Your task to perform on an android device: Clear all items from cart on ebay. Add logitech g502 to the cart on ebay, then select checkout. Image 0: 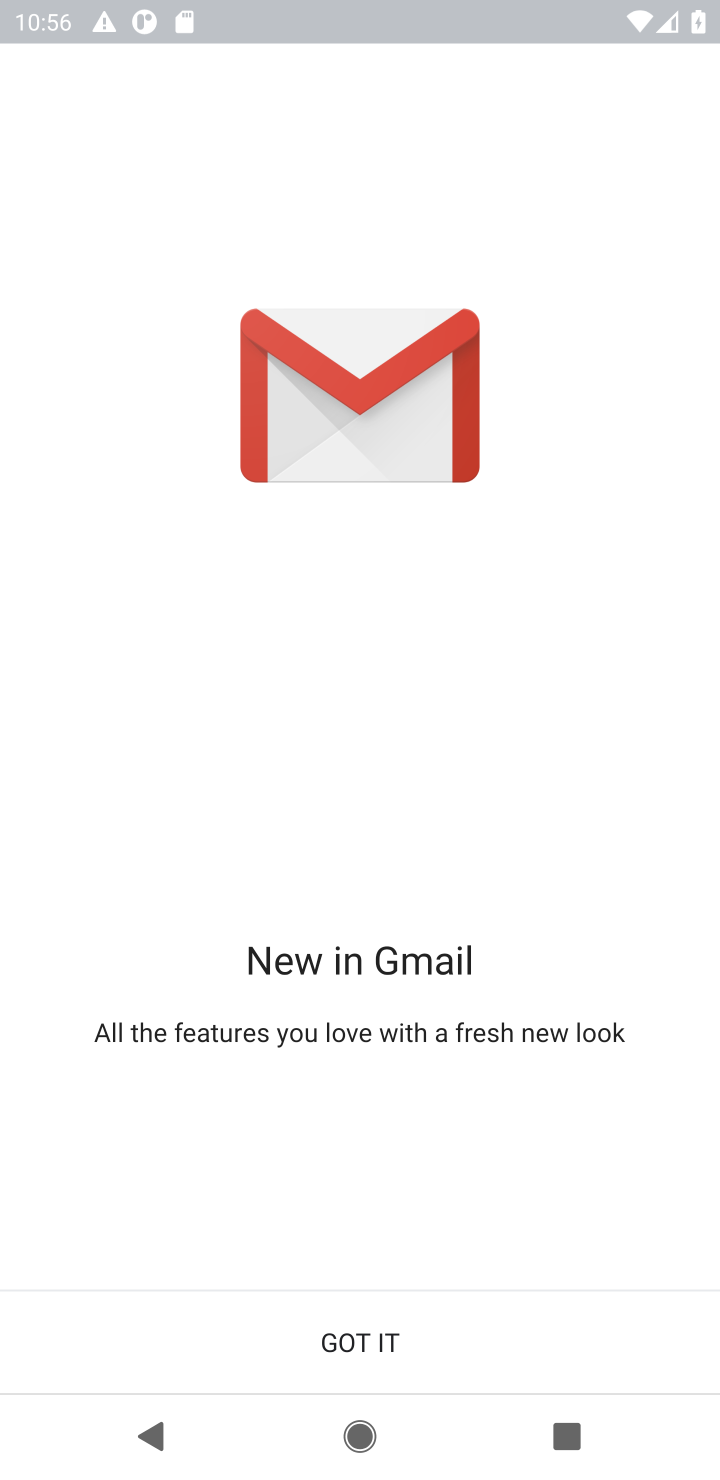
Step 0: press home button
Your task to perform on an android device: Clear all items from cart on ebay. Add logitech g502 to the cart on ebay, then select checkout. Image 1: 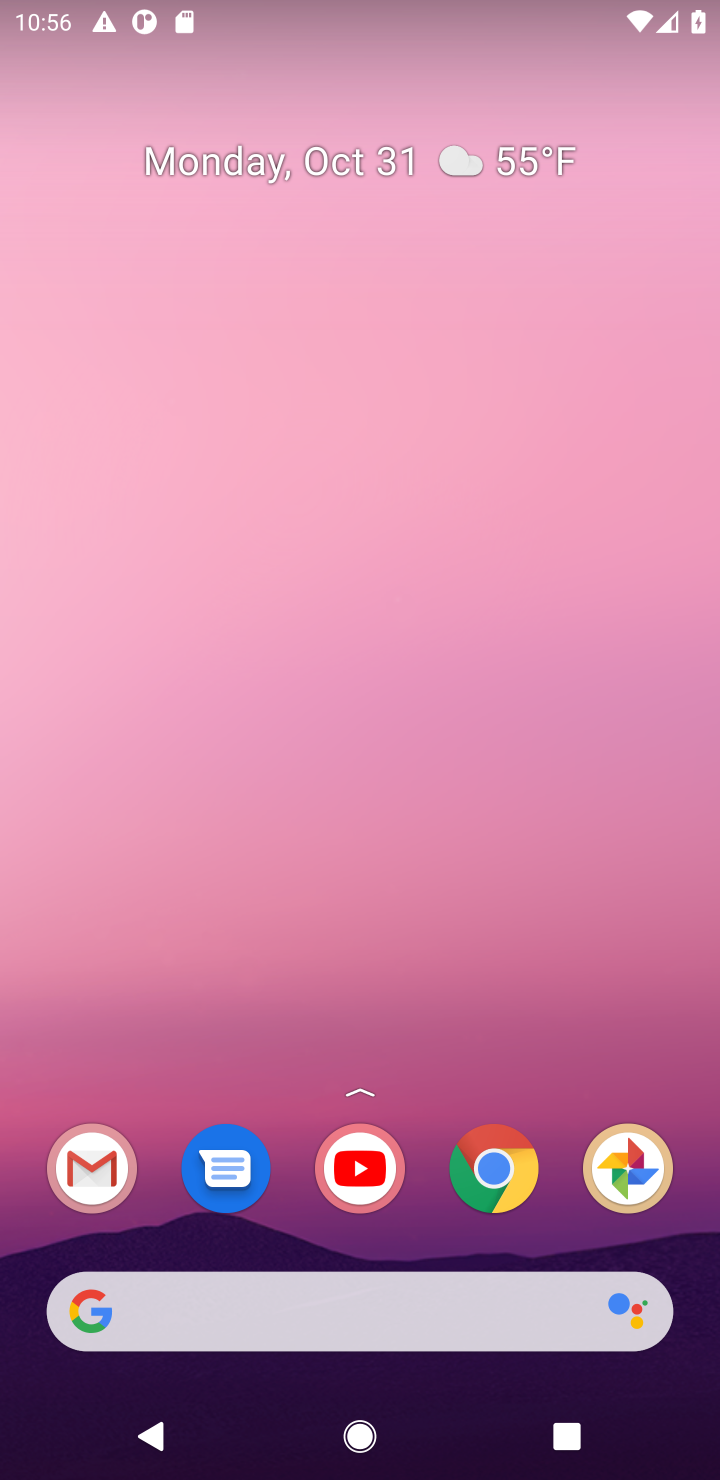
Step 1: click (472, 1191)
Your task to perform on an android device: Clear all items from cart on ebay. Add logitech g502 to the cart on ebay, then select checkout. Image 2: 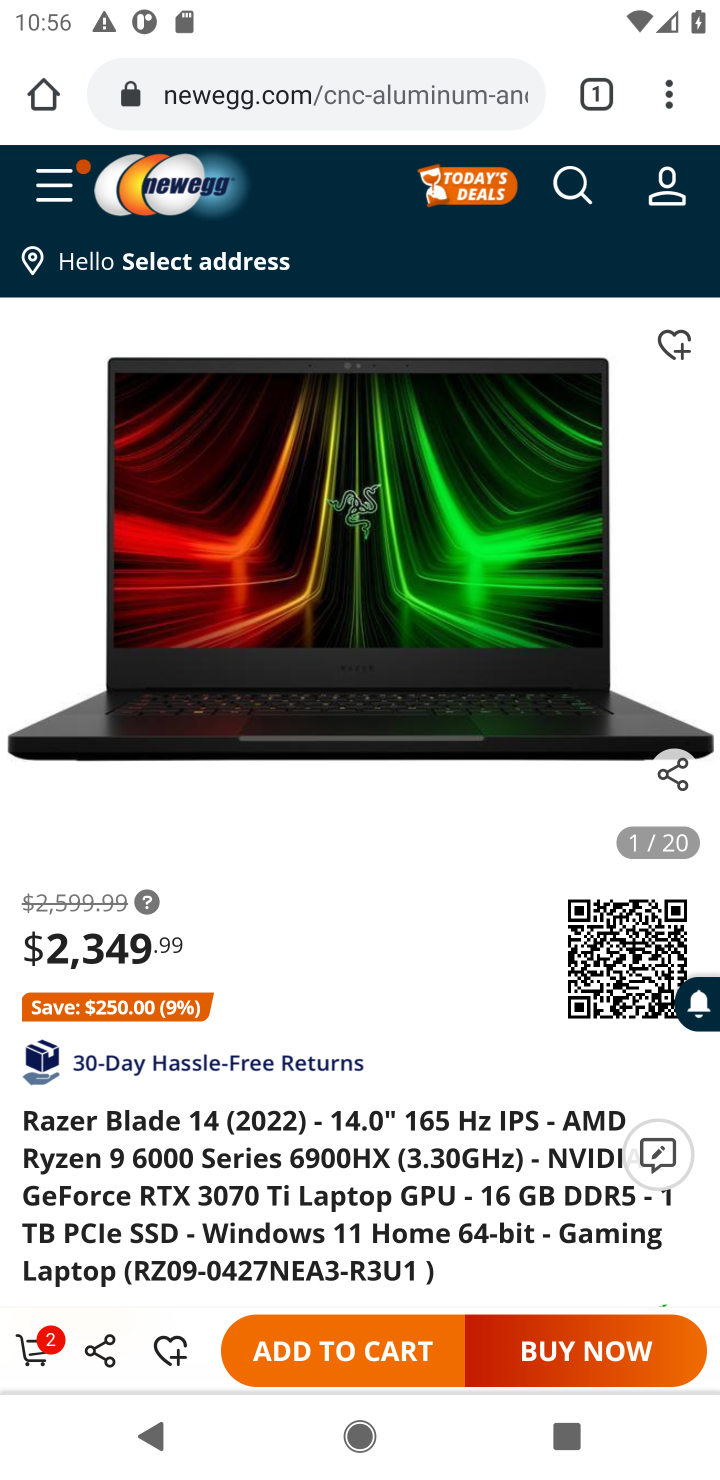
Step 2: click (376, 82)
Your task to perform on an android device: Clear all items from cart on ebay. Add logitech g502 to the cart on ebay, then select checkout. Image 3: 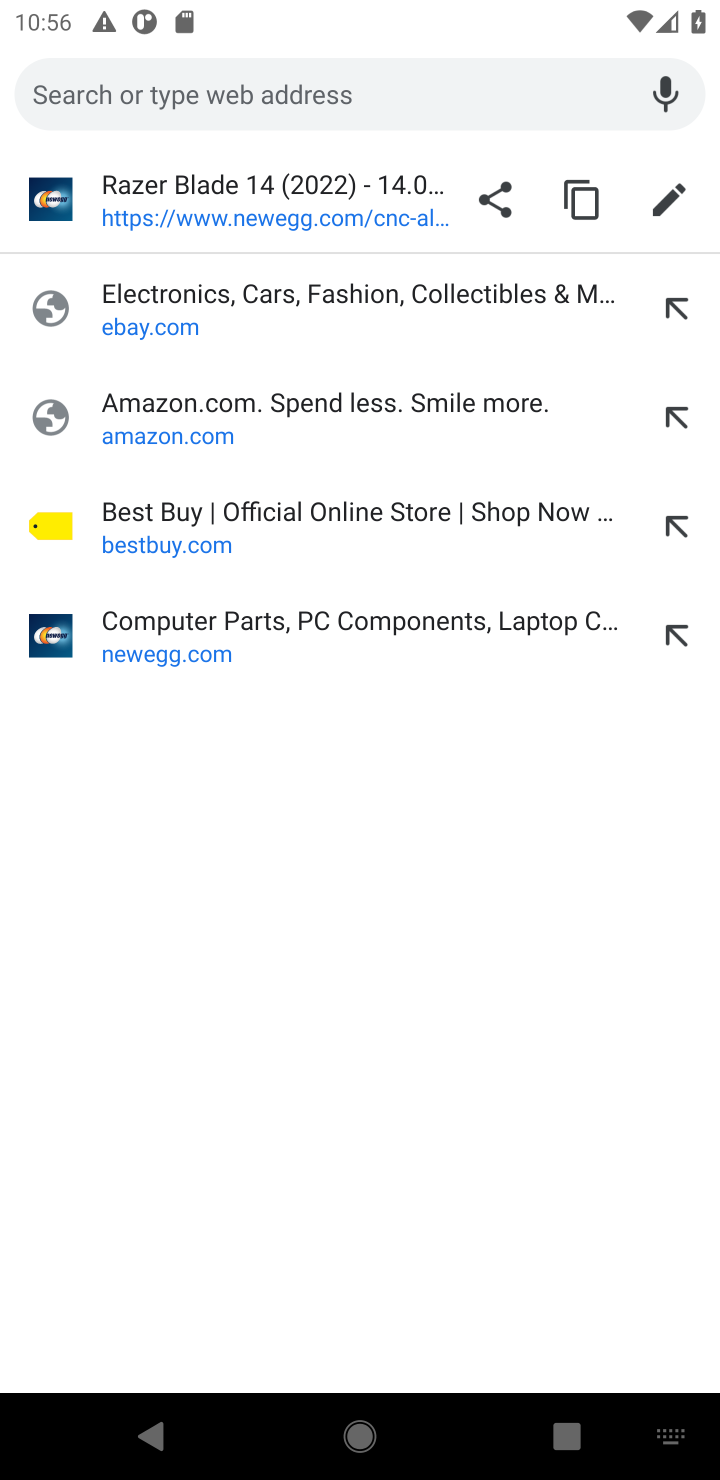
Step 3: type "ebay"
Your task to perform on an android device: Clear all items from cart on ebay. Add logitech g502 to the cart on ebay, then select checkout. Image 4: 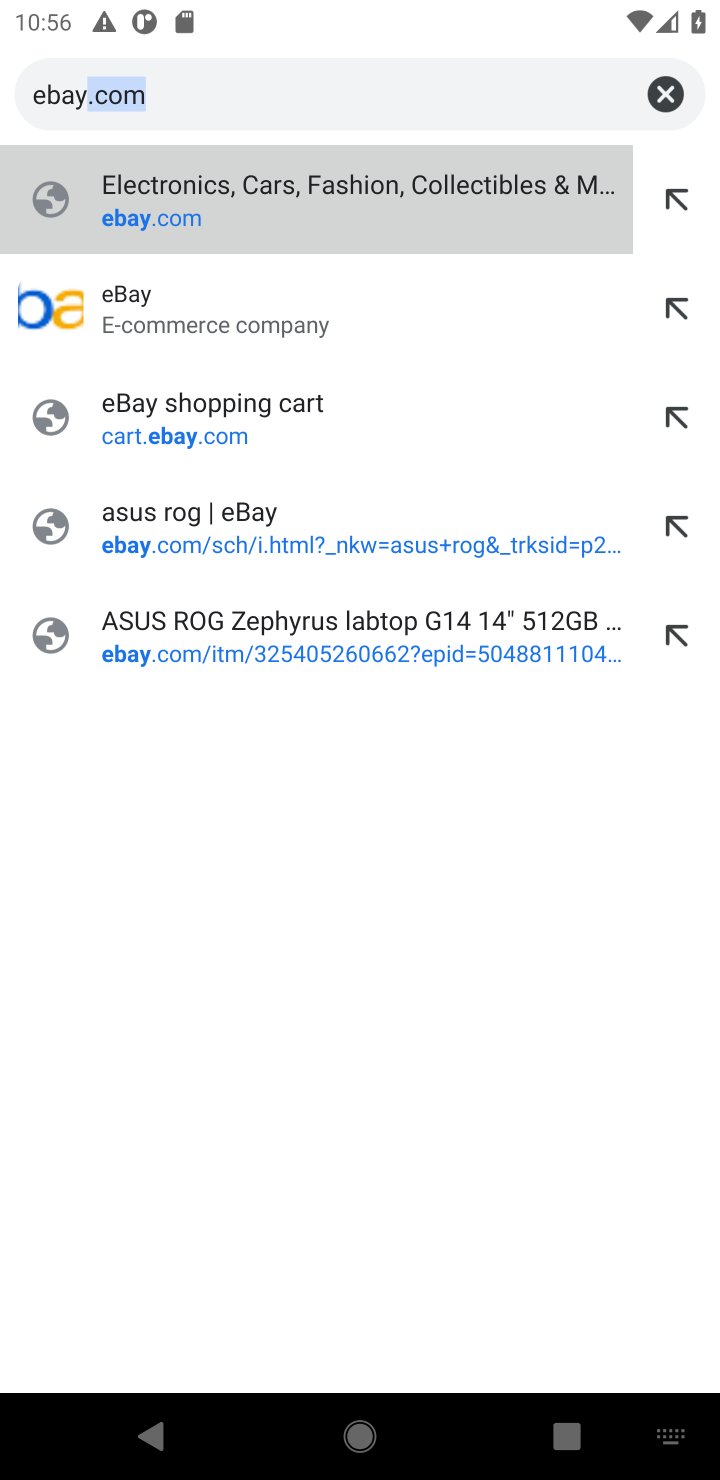
Step 4: press enter
Your task to perform on an android device: Clear all items from cart on ebay. Add logitech g502 to the cart on ebay, then select checkout. Image 5: 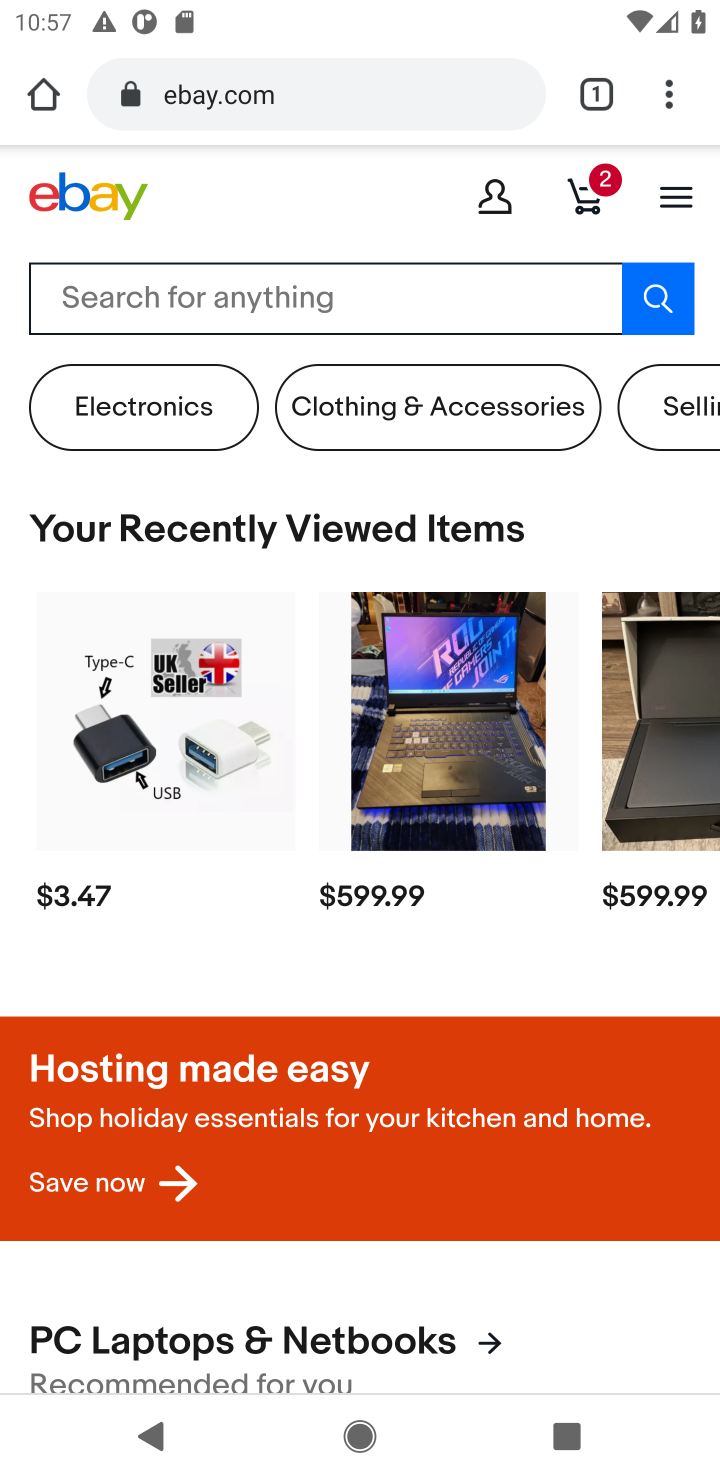
Step 5: click (600, 184)
Your task to perform on an android device: Clear all items from cart on ebay. Add logitech g502 to the cart on ebay, then select checkout. Image 6: 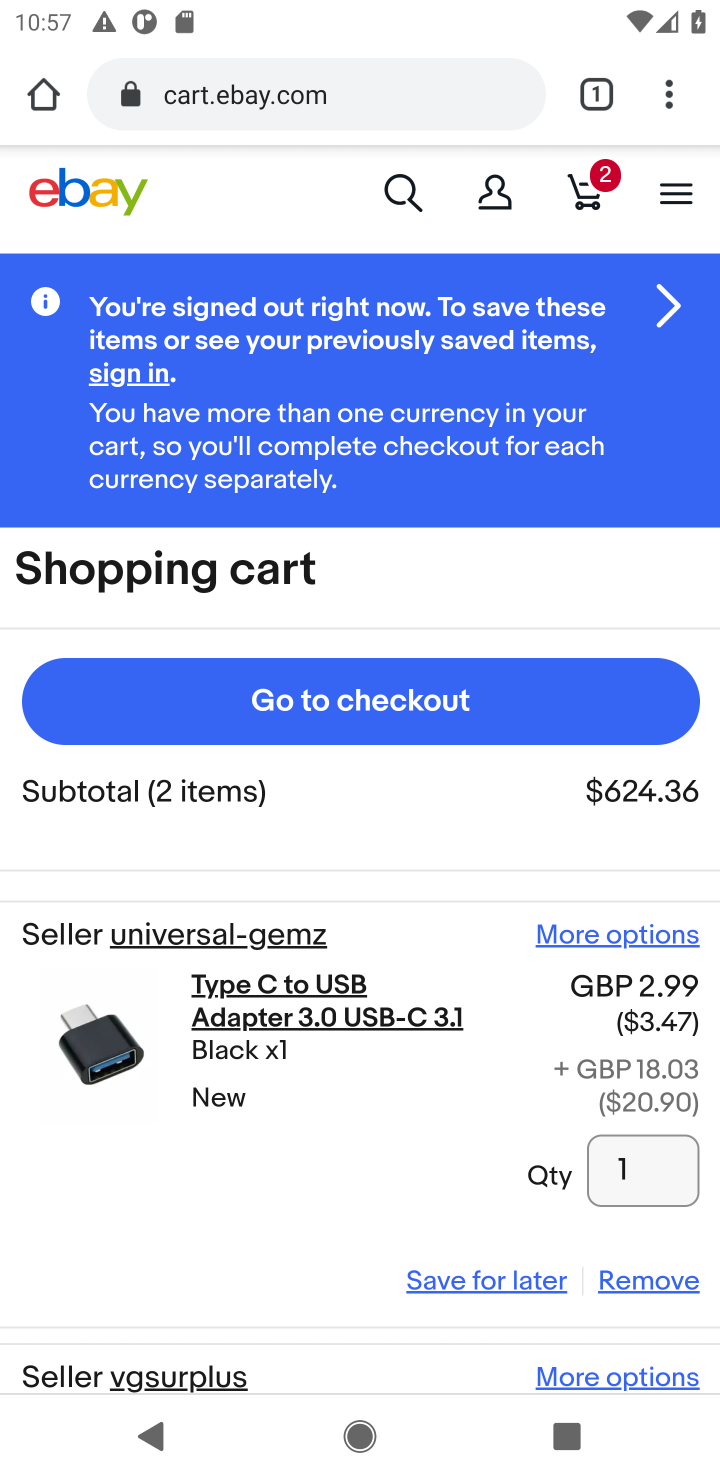
Step 6: click (645, 1287)
Your task to perform on an android device: Clear all items from cart on ebay. Add logitech g502 to the cart on ebay, then select checkout. Image 7: 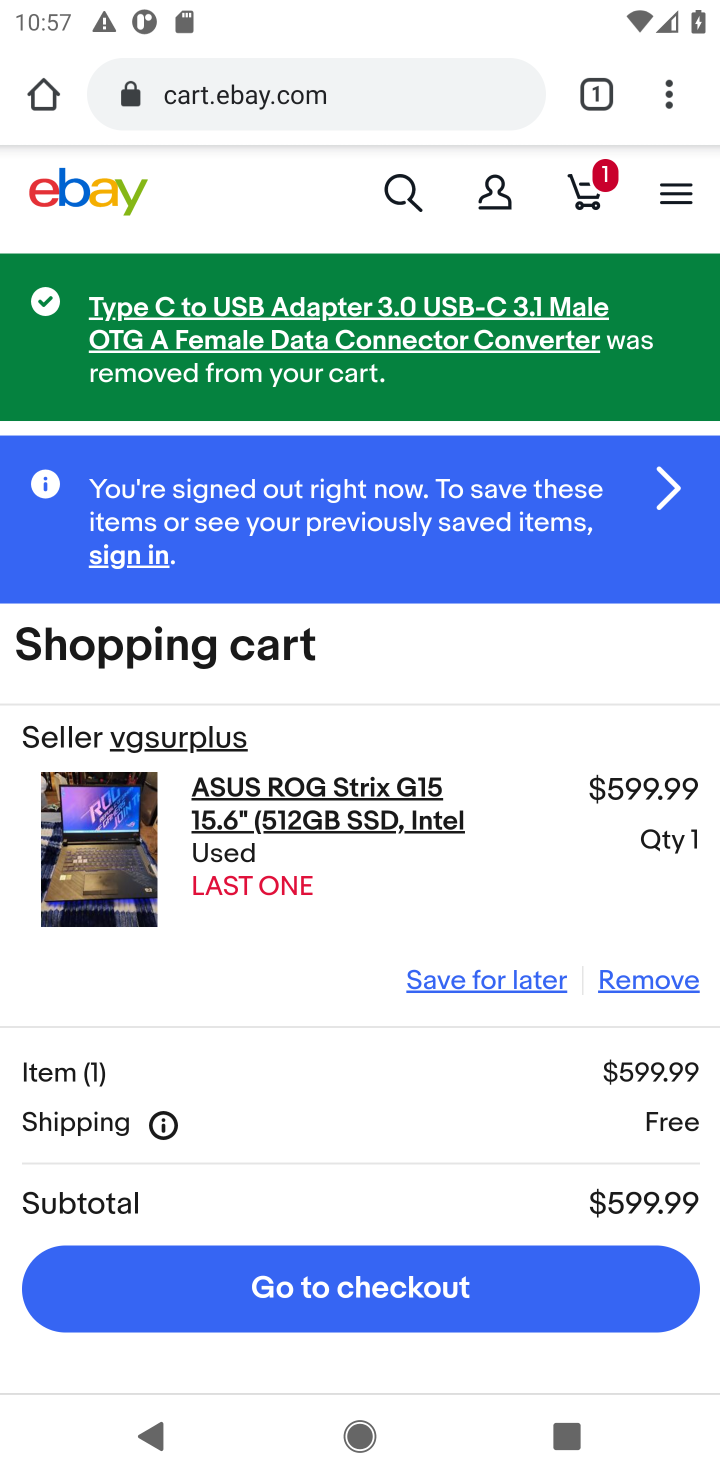
Step 7: click (624, 984)
Your task to perform on an android device: Clear all items from cart on ebay. Add logitech g502 to the cart on ebay, then select checkout. Image 8: 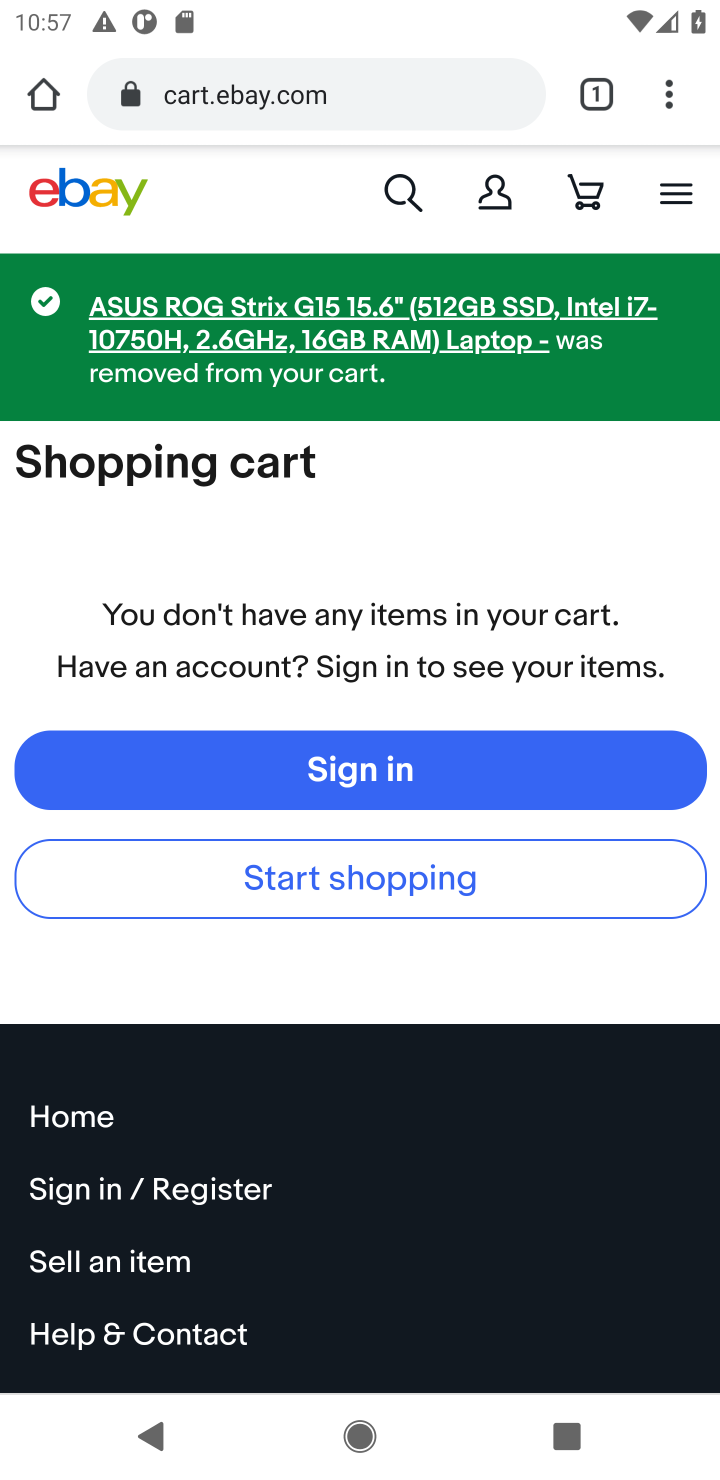
Step 8: click (410, 184)
Your task to perform on an android device: Clear all items from cart on ebay. Add logitech g502 to the cart on ebay, then select checkout. Image 9: 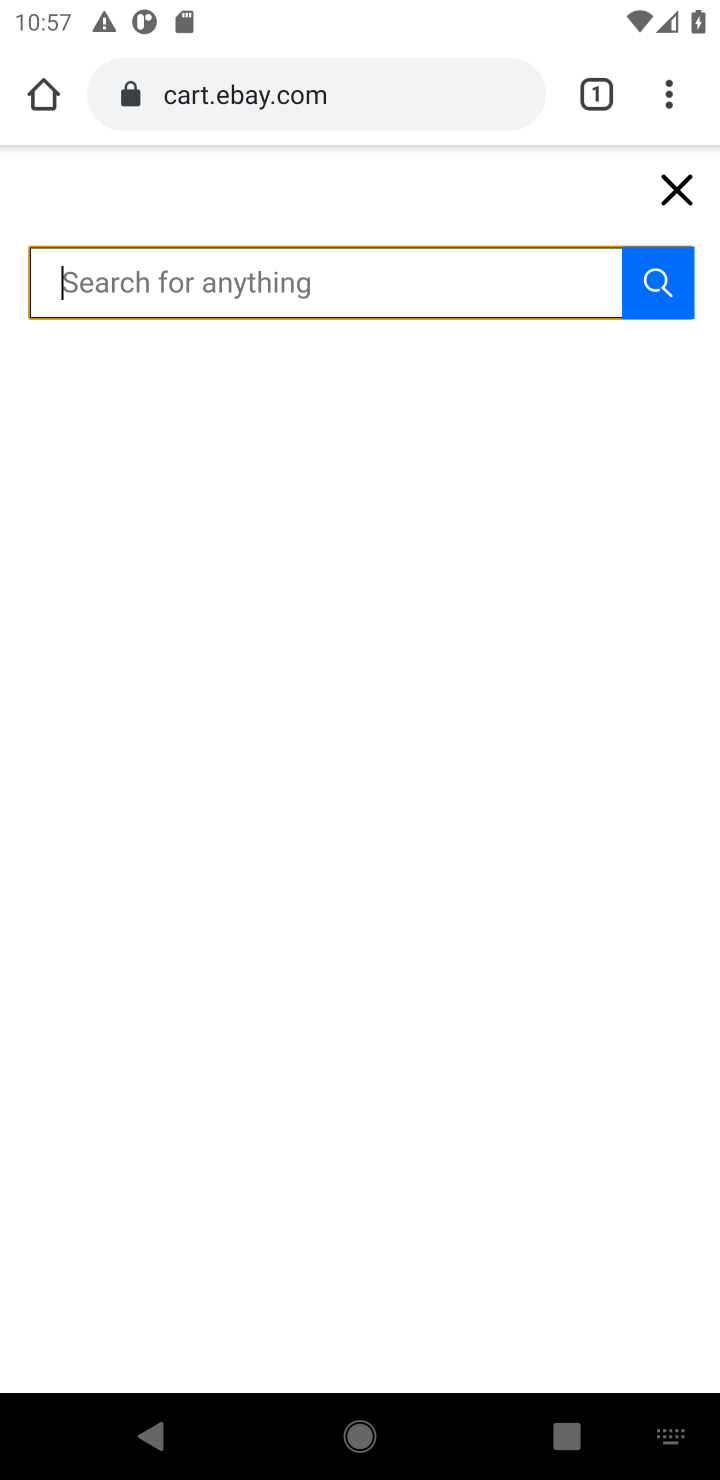
Step 9: click (474, 288)
Your task to perform on an android device: Clear all items from cart on ebay. Add logitech g502 to the cart on ebay, then select checkout. Image 10: 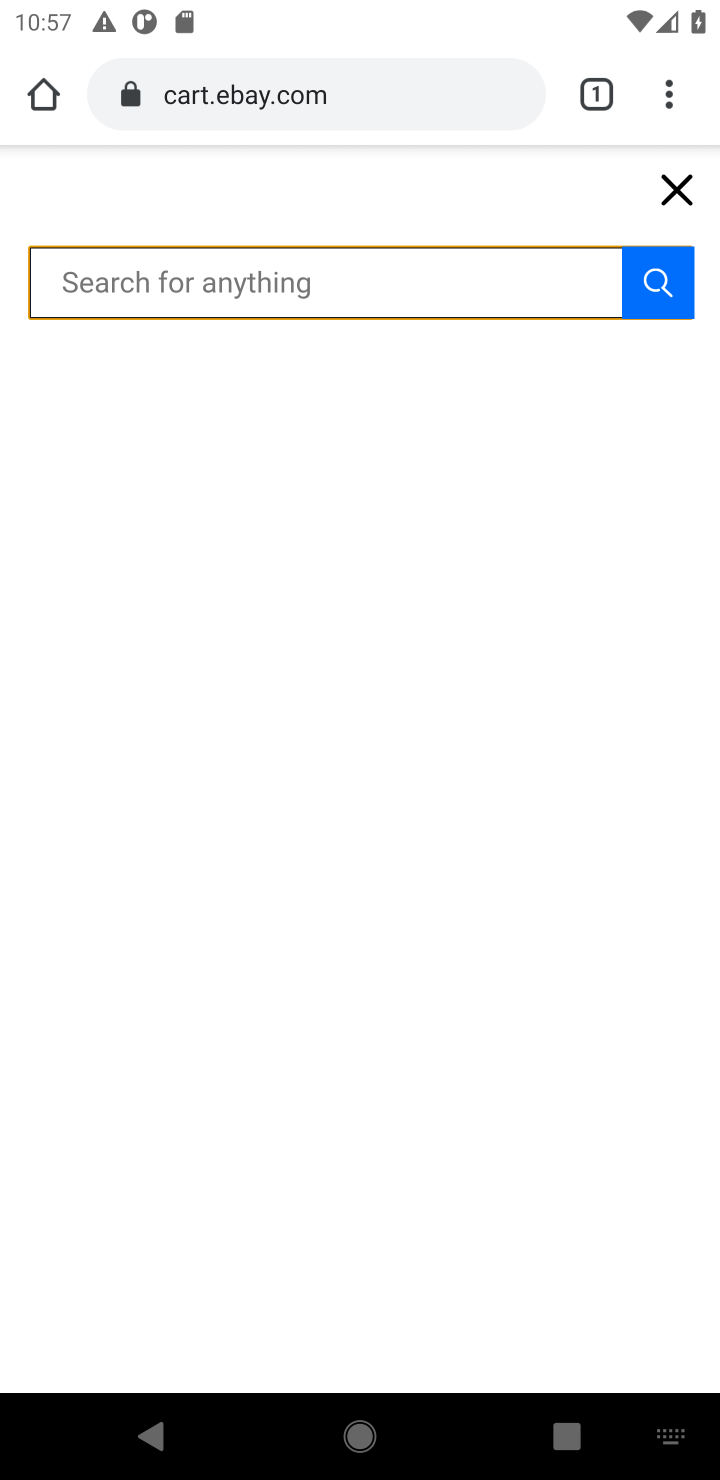
Step 10: type "logitech g502"
Your task to perform on an android device: Clear all items from cart on ebay. Add logitech g502 to the cart on ebay, then select checkout. Image 11: 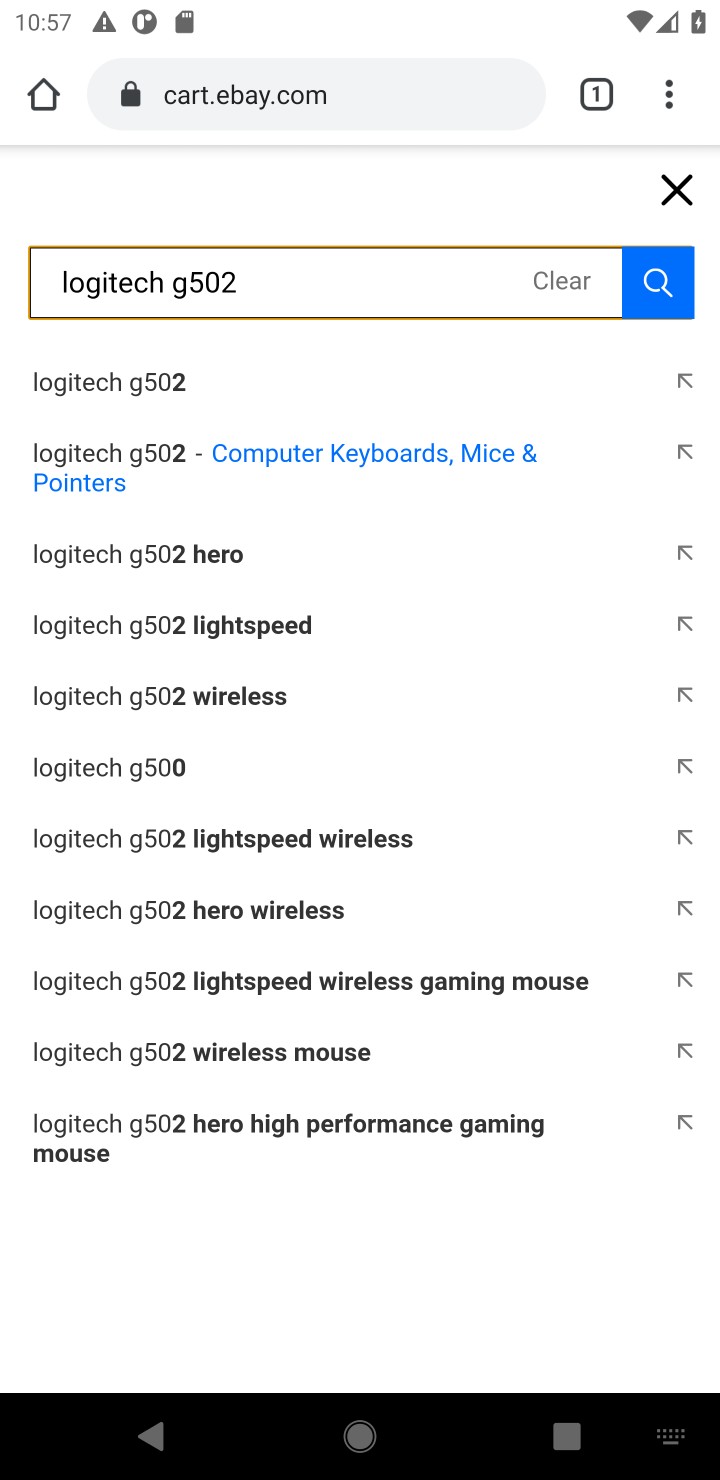
Step 11: click (144, 375)
Your task to perform on an android device: Clear all items from cart on ebay. Add logitech g502 to the cart on ebay, then select checkout. Image 12: 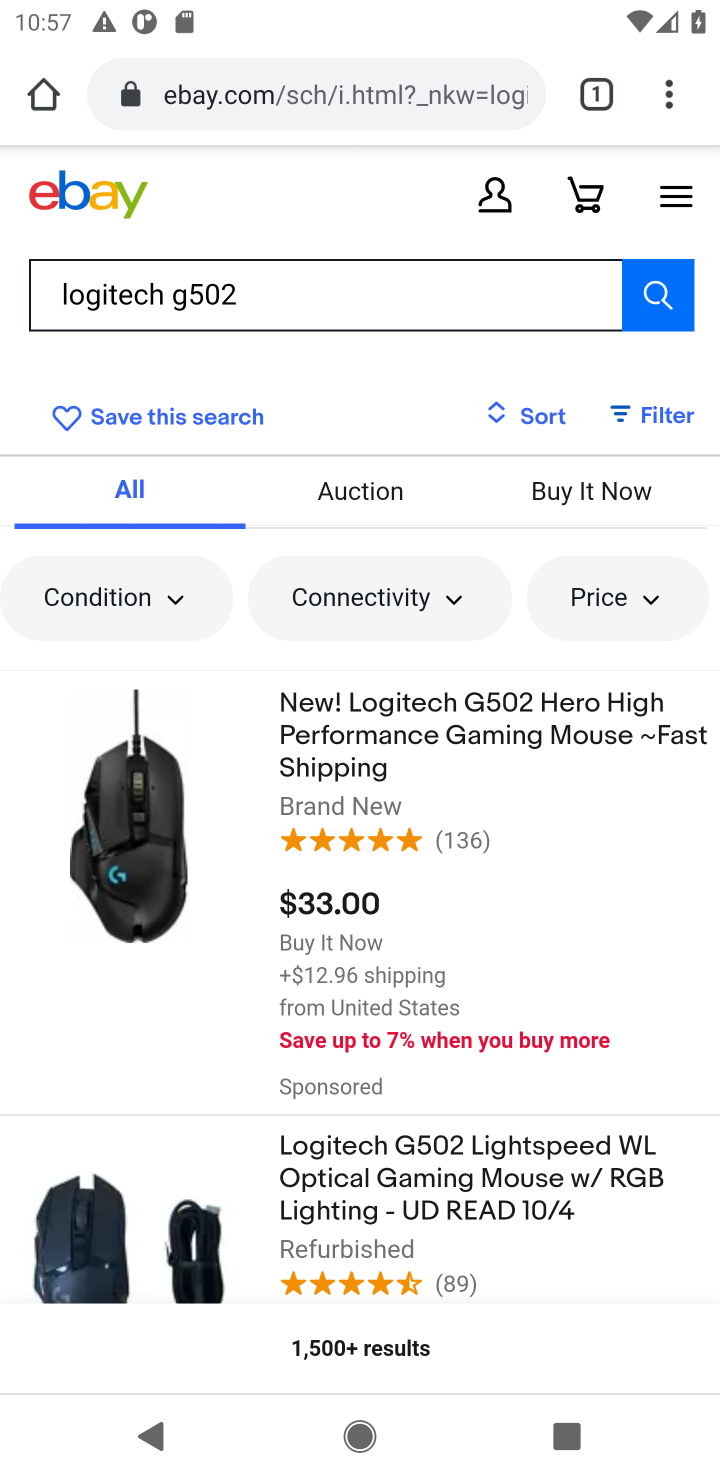
Step 12: click (419, 728)
Your task to perform on an android device: Clear all items from cart on ebay. Add logitech g502 to the cart on ebay, then select checkout. Image 13: 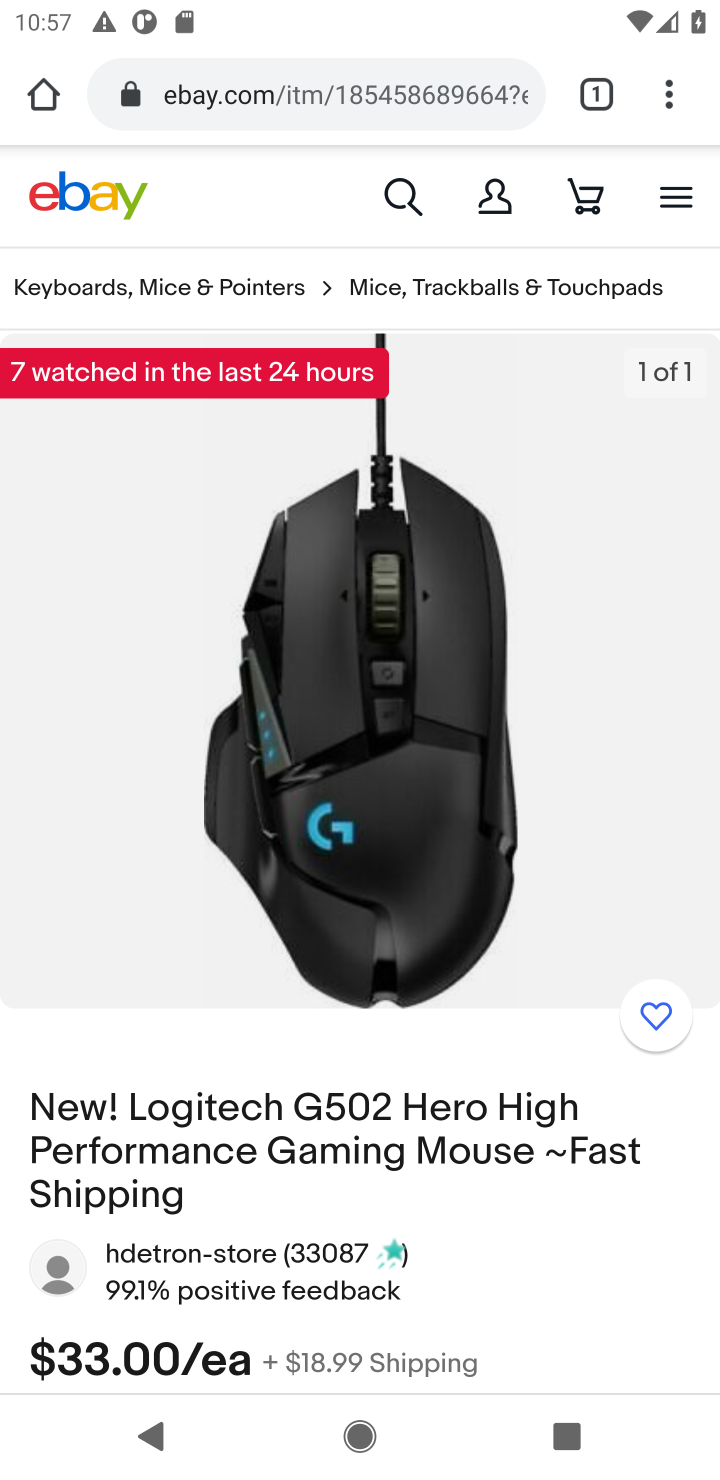
Step 13: drag from (599, 1290) to (576, 595)
Your task to perform on an android device: Clear all items from cart on ebay. Add logitech g502 to the cart on ebay, then select checkout. Image 14: 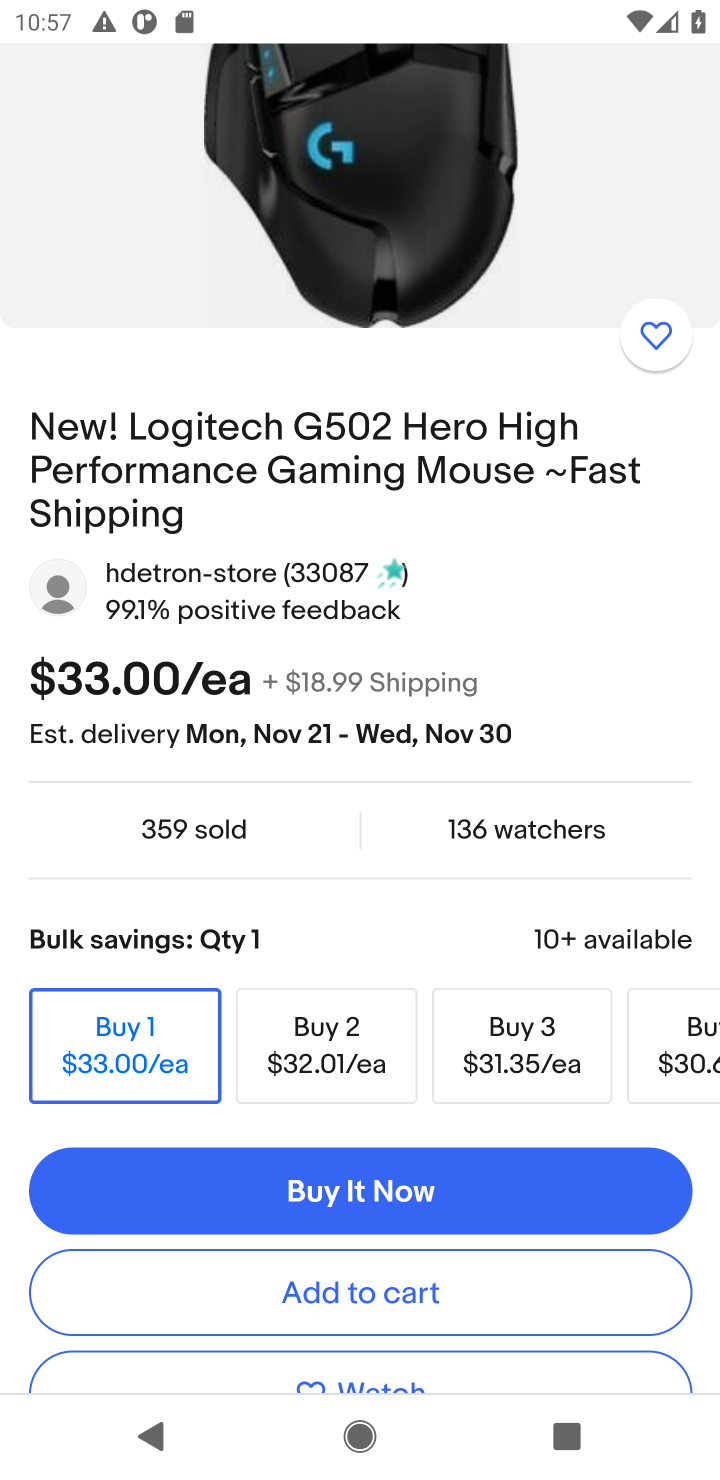
Step 14: click (413, 1277)
Your task to perform on an android device: Clear all items from cart on ebay. Add logitech g502 to the cart on ebay, then select checkout. Image 15: 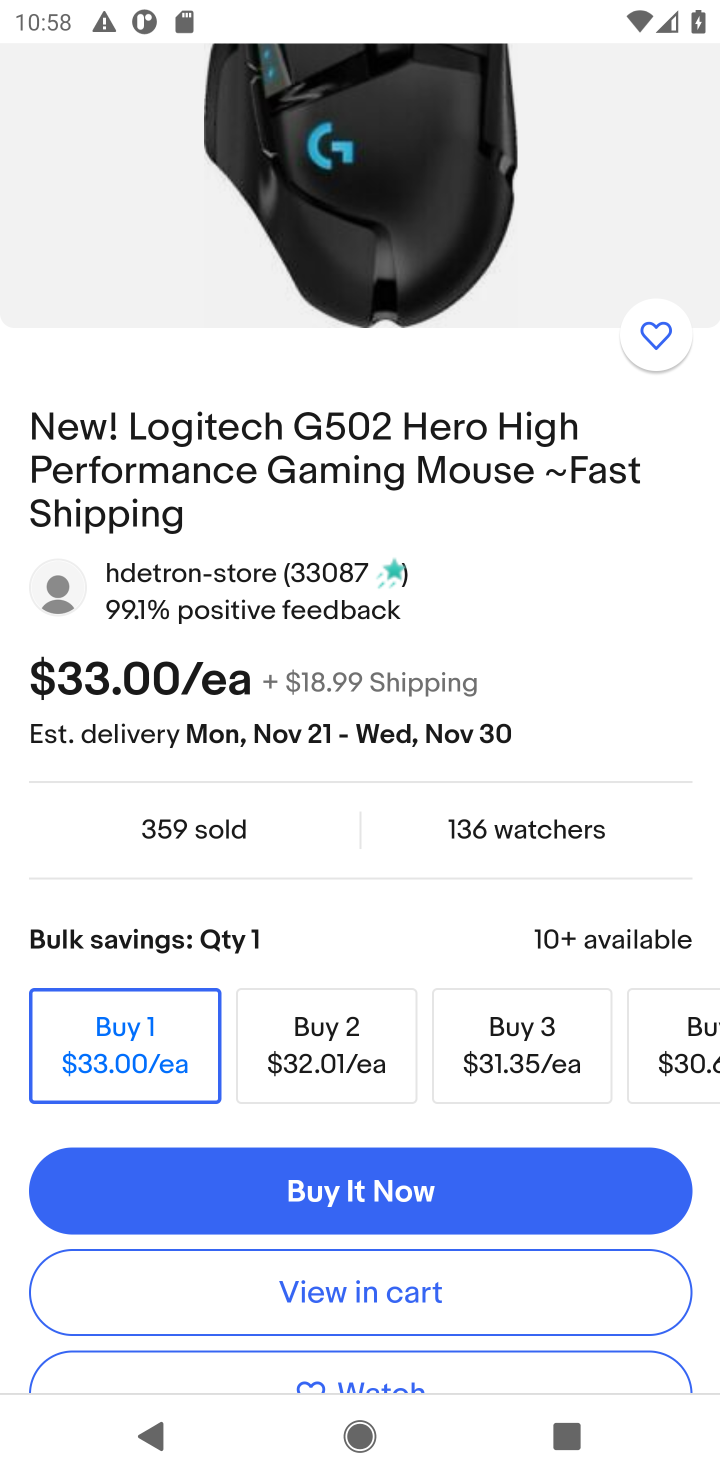
Step 15: click (413, 1277)
Your task to perform on an android device: Clear all items from cart on ebay. Add logitech g502 to the cart on ebay, then select checkout. Image 16: 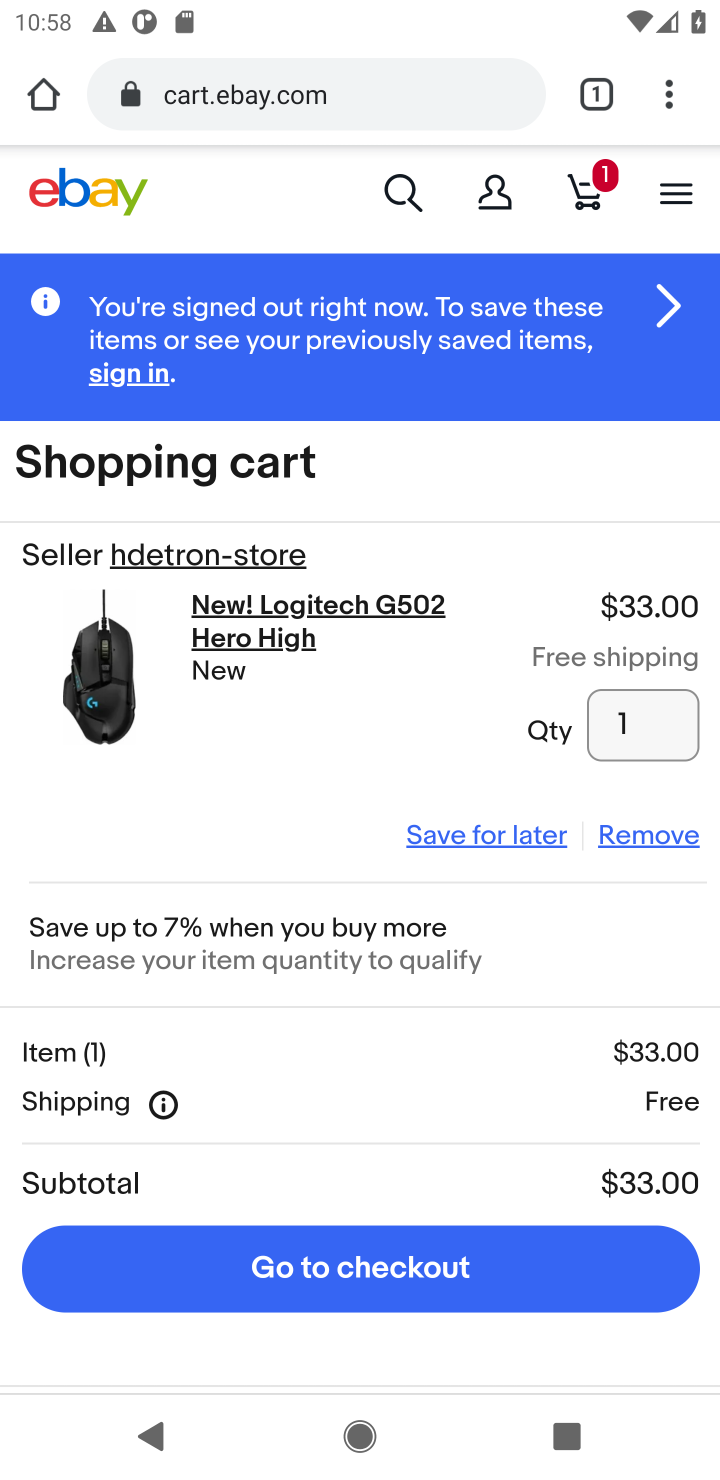
Step 16: click (413, 1277)
Your task to perform on an android device: Clear all items from cart on ebay. Add logitech g502 to the cart on ebay, then select checkout. Image 17: 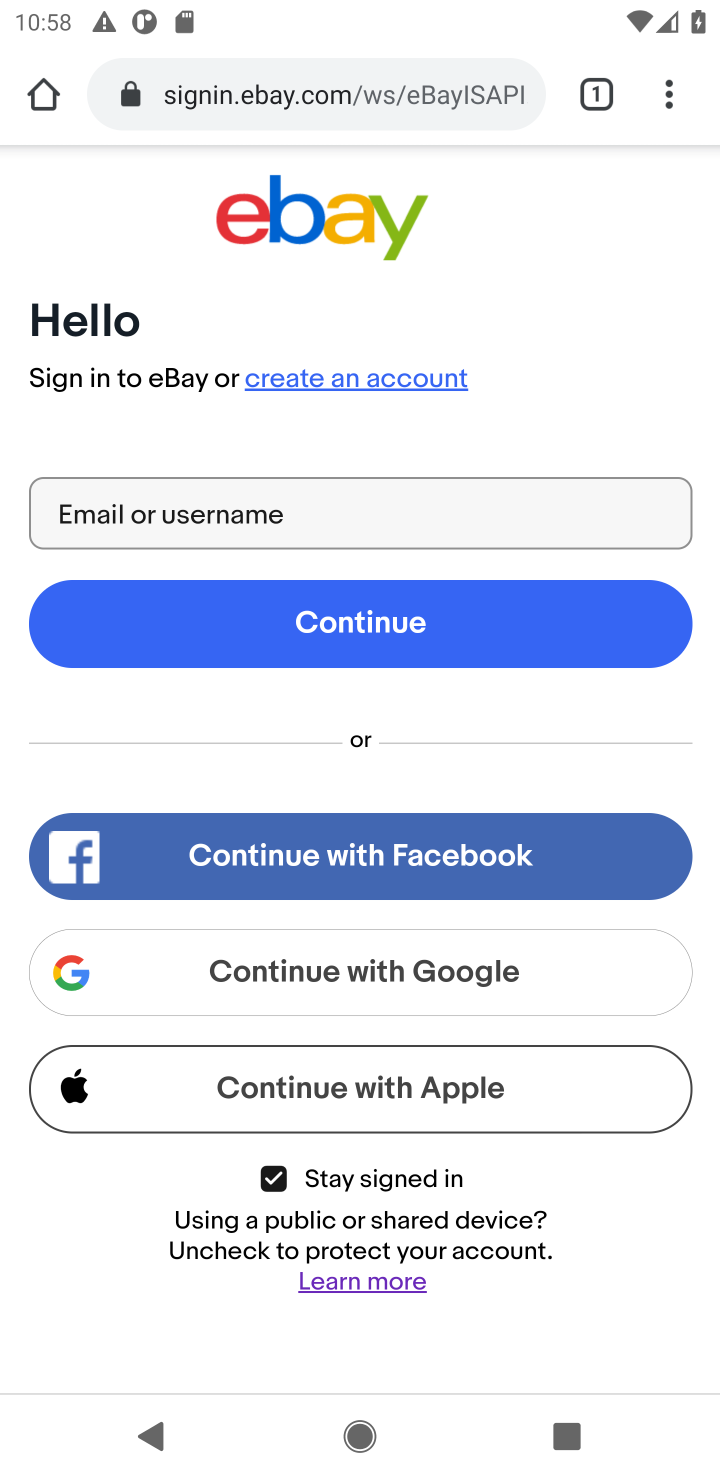
Step 17: task complete